Your task to perform on an android device: check battery use Image 0: 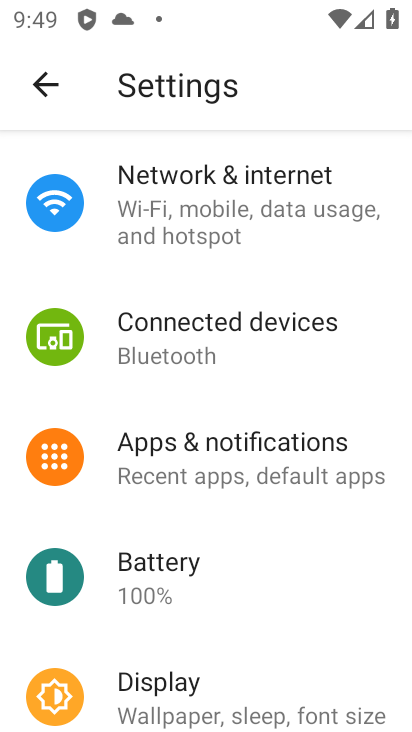
Step 0: press home button
Your task to perform on an android device: check battery use Image 1: 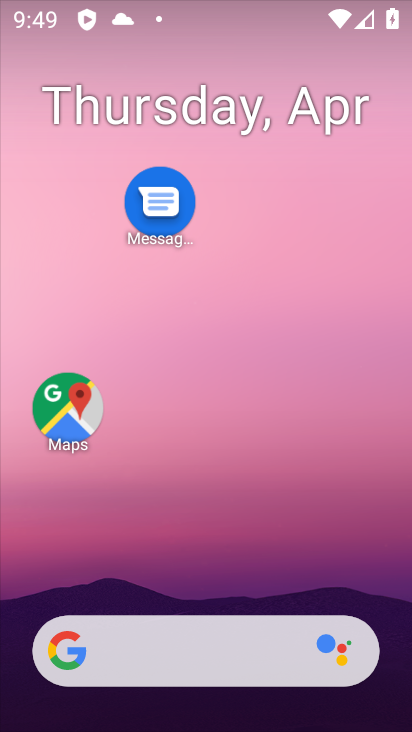
Step 1: drag from (215, 603) to (229, 61)
Your task to perform on an android device: check battery use Image 2: 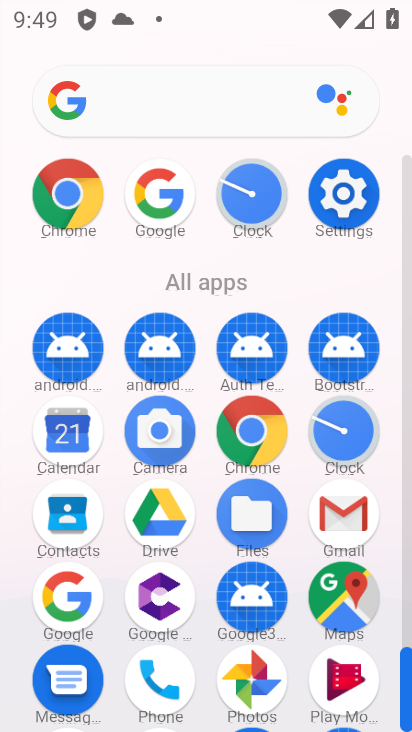
Step 2: click (344, 182)
Your task to perform on an android device: check battery use Image 3: 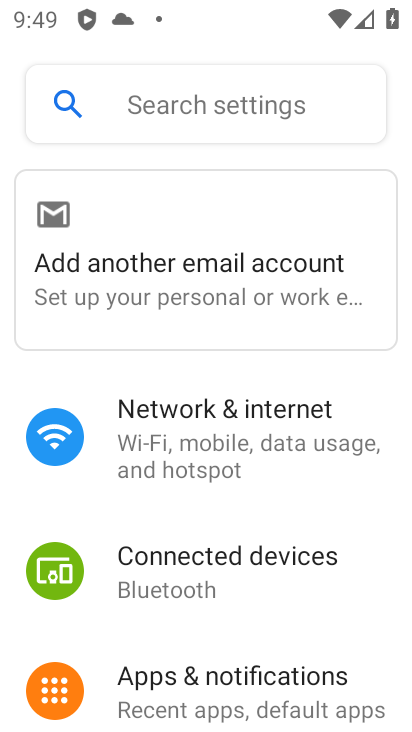
Step 3: drag from (207, 650) to (247, 177)
Your task to perform on an android device: check battery use Image 4: 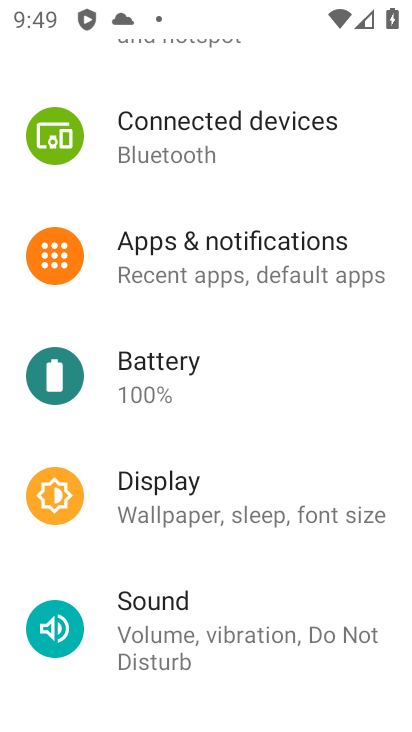
Step 4: click (230, 396)
Your task to perform on an android device: check battery use Image 5: 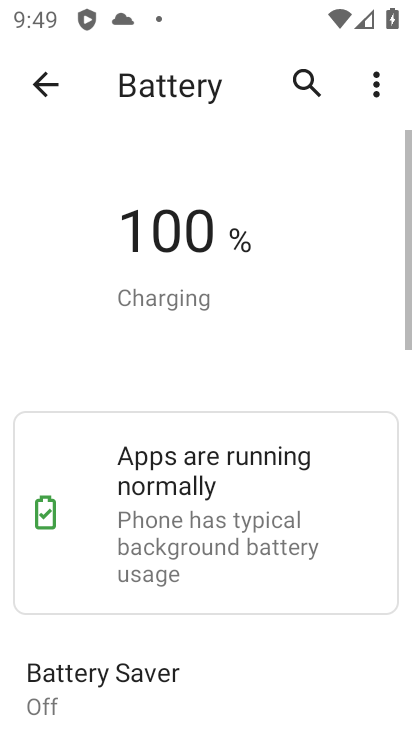
Step 5: click (367, 96)
Your task to perform on an android device: check battery use Image 6: 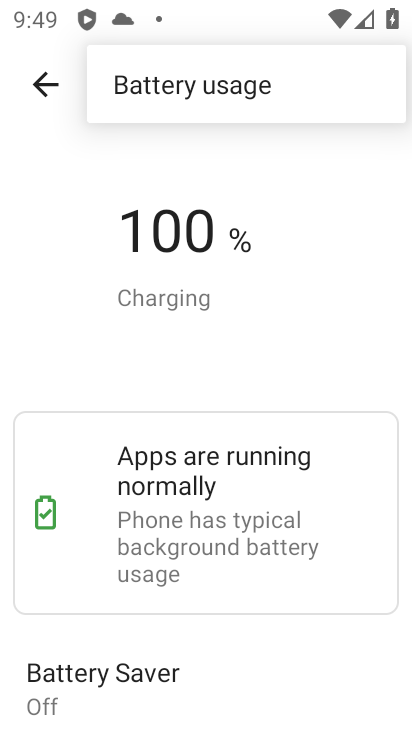
Step 6: click (327, 89)
Your task to perform on an android device: check battery use Image 7: 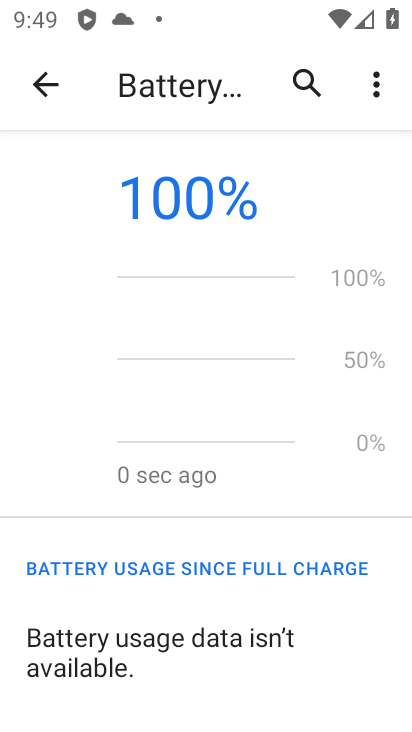
Step 7: task complete